Your task to perform on an android device: Go to network settings Image 0: 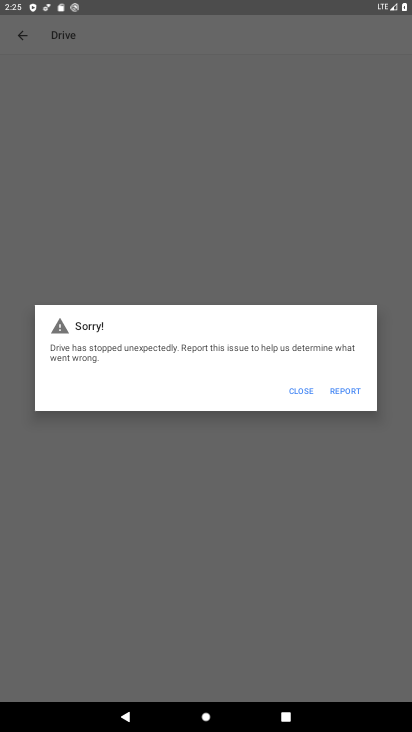
Step 0: press home button
Your task to perform on an android device: Go to network settings Image 1: 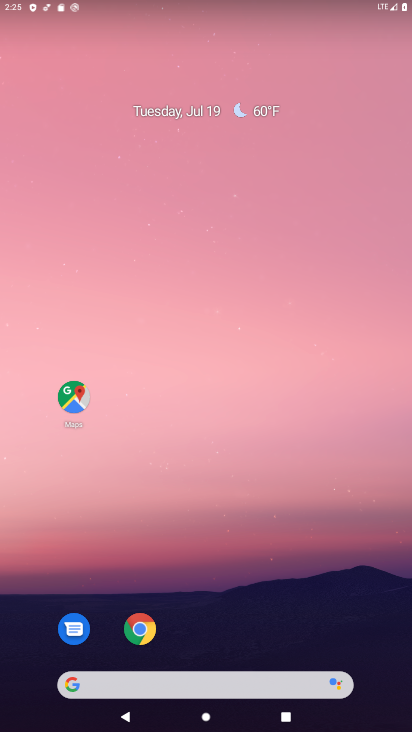
Step 1: drag from (195, 624) to (188, 179)
Your task to perform on an android device: Go to network settings Image 2: 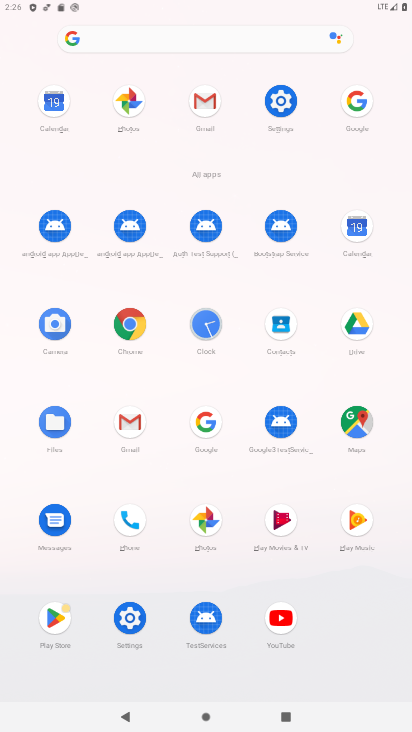
Step 2: click (279, 115)
Your task to perform on an android device: Go to network settings Image 3: 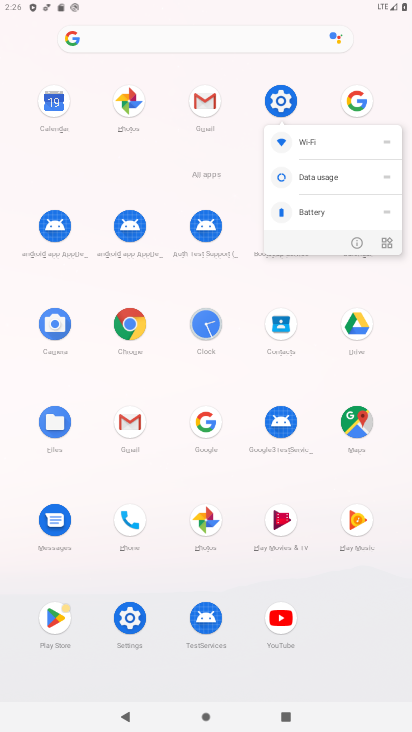
Step 3: click (289, 100)
Your task to perform on an android device: Go to network settings Image 4: 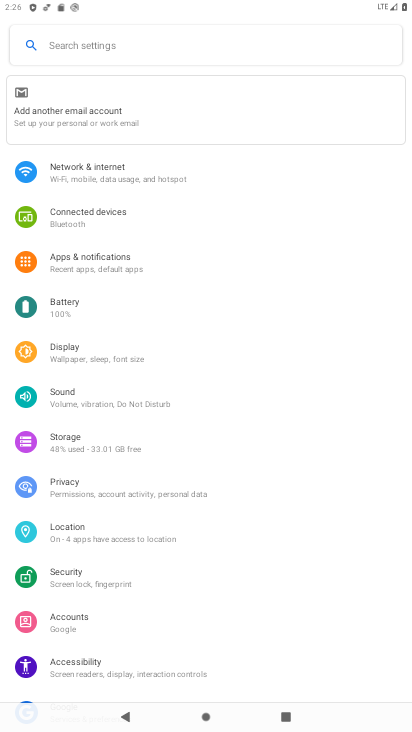
Step 4: click (116, 179)
Your task to perform on an android device: Go to network settings Image 5: 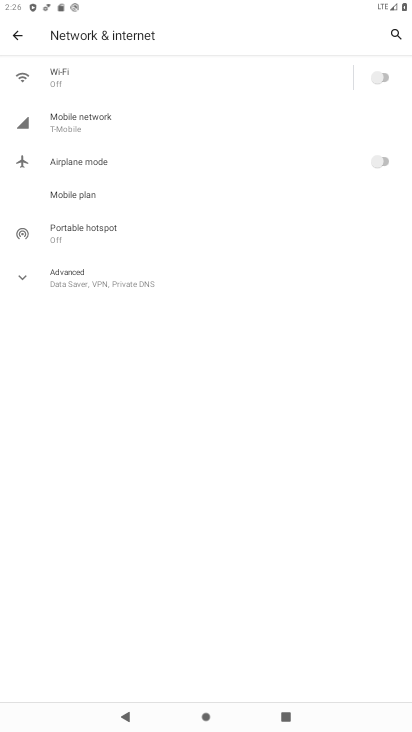
Step 5: task complete